Your task to perform on an android device: Go to battery settings Image 0: 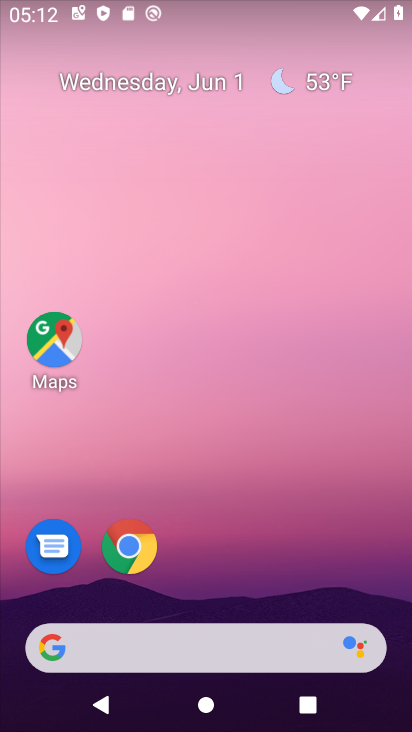
Step 0: drag from (235, 590) to (193, 122)
Your task to perform on an android device: Go to battery settings Image 1: 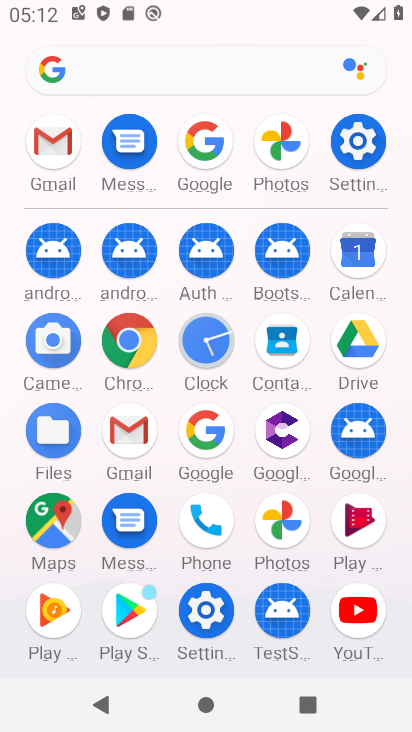
Step 1: click (351, 145)
Your task to perform on an android device: Go to battery settings Image 2: 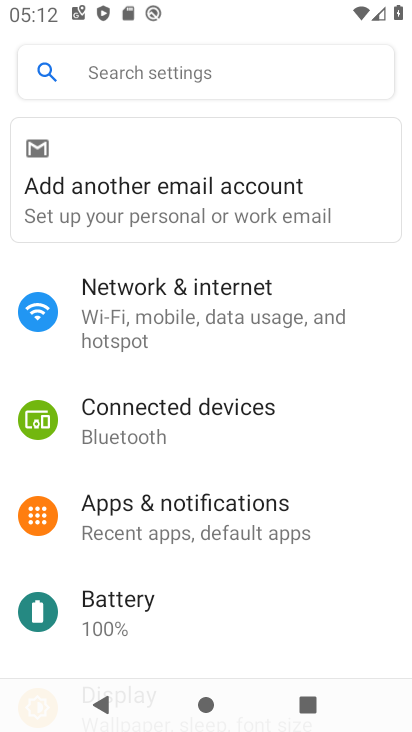
Step 2: click (115, 597)
Your task to perform on an android device: Go to battery settings Image 3: 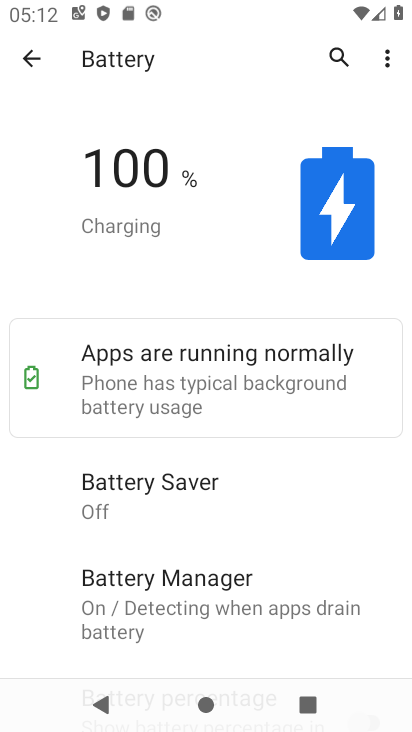
Step 3: task complete